Your task to perform on an android device: empty trash in google photos Image 0: 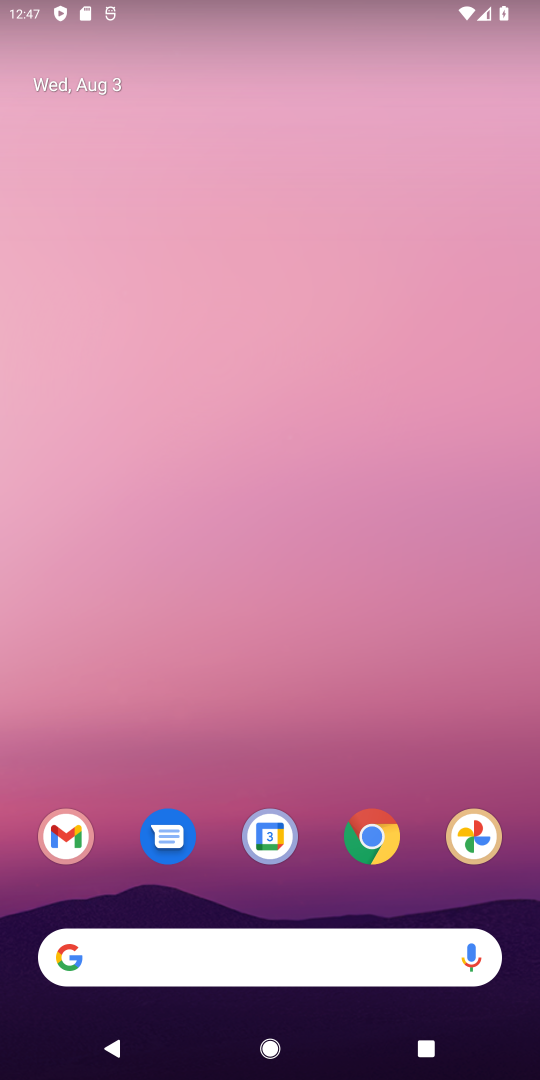
Step 0: drag from (226, 885) to (476, 111)
Your task to perform on an android device: empty trash in google photos Image 1: 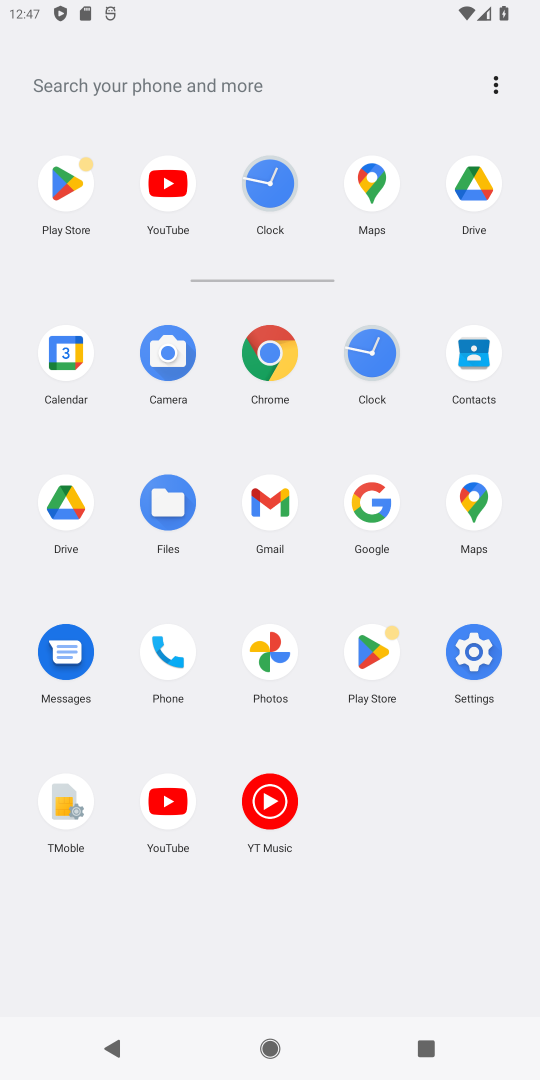
Step 1: drag from (352, 841) to (317, 316)
Your task to perform on an android device: empty trash in google photos Image 2: 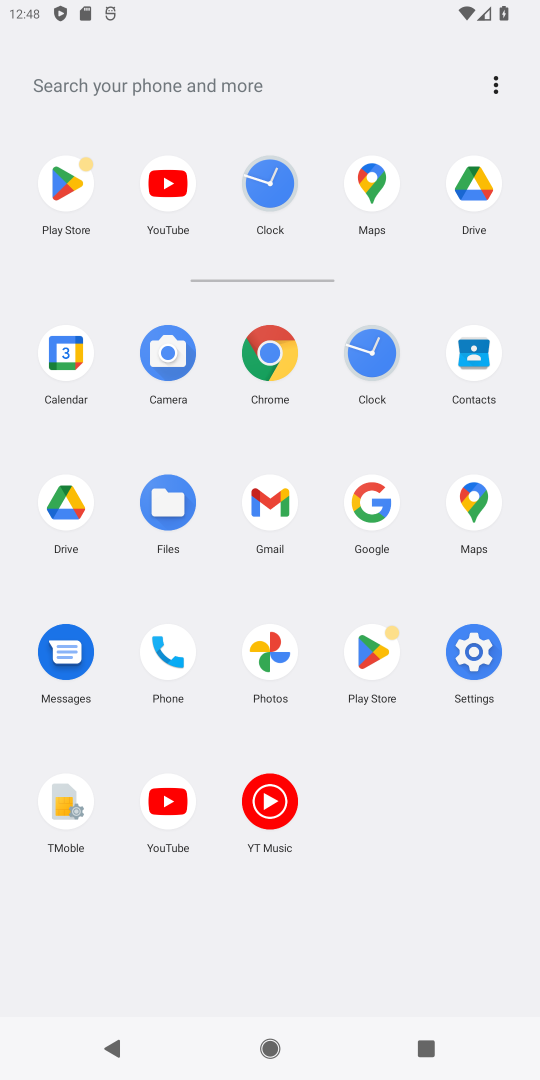
Step 2: click (276, 643)
Your task to perform on an android device: empty trash in google photos Image 3: 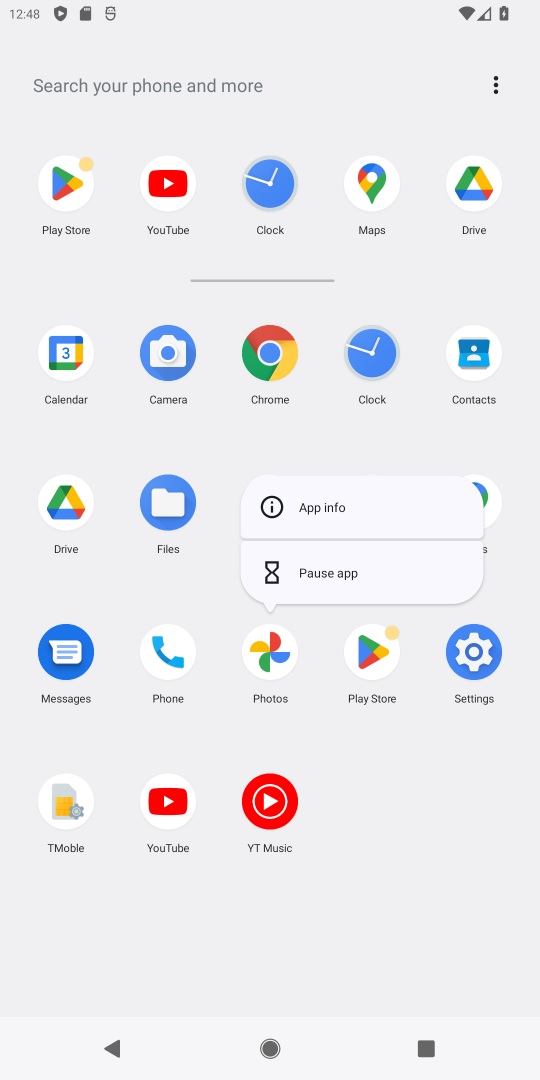
Step 3: click (357, 498)
Your task to perform on an android device: empty trash in google photos Image 4: 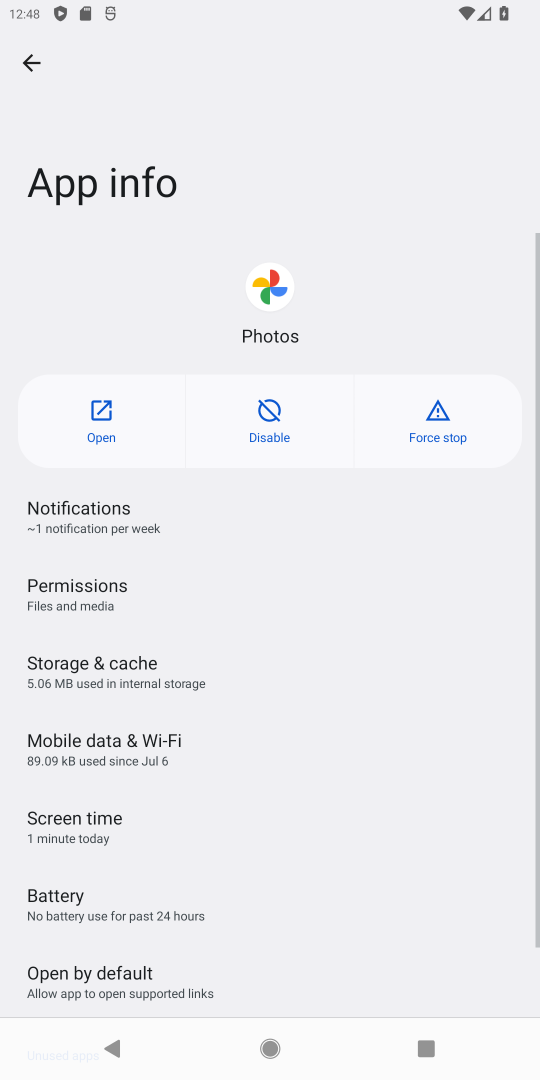
Step 4: click (99, 424)
Your task to perform on an android device: empty trash in google photos Image 5: 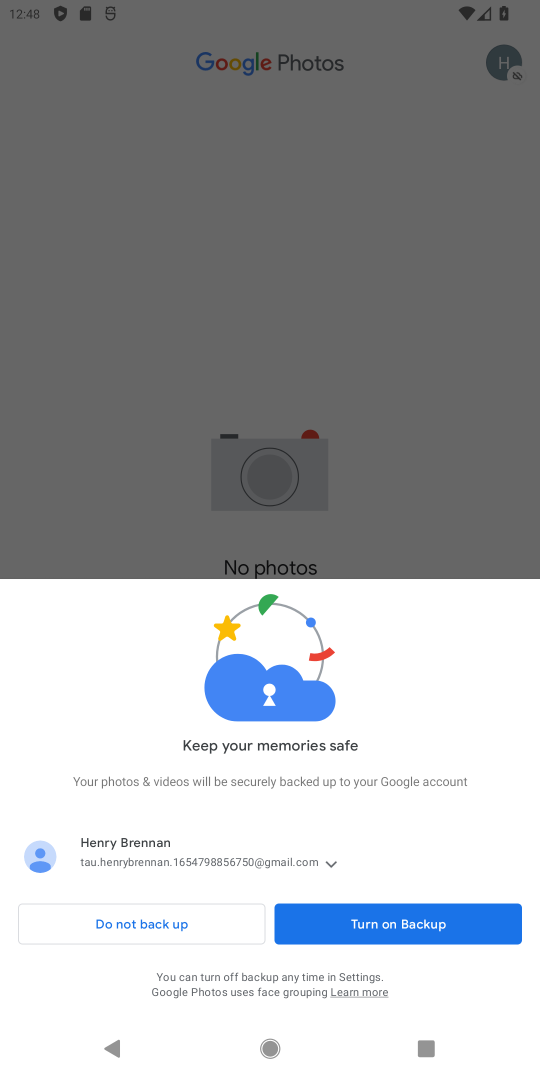
Step 5: drag from (285, 658) to (288, 162)
Your task to perform on an android device: empty trash in google photos Image 6: 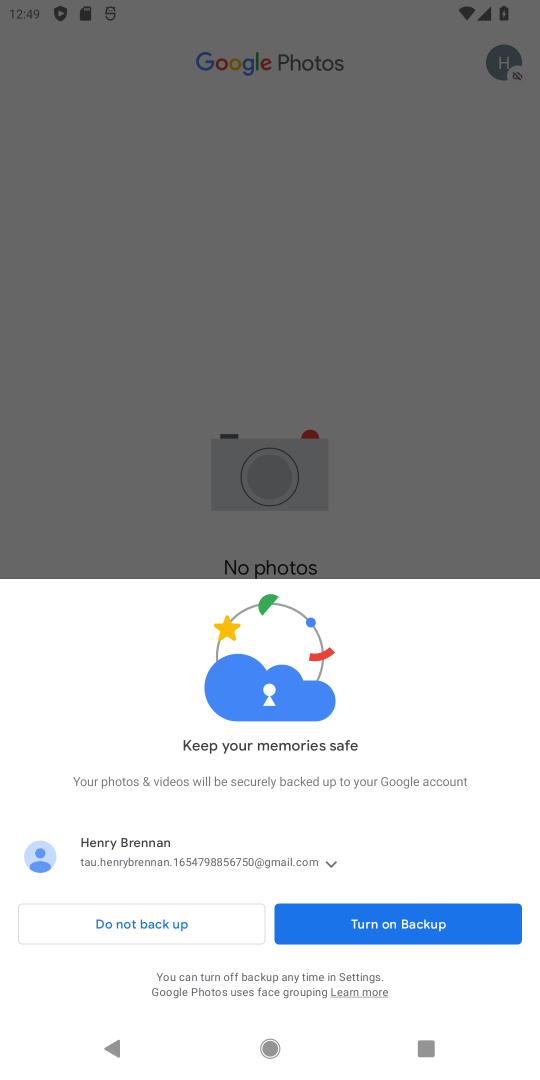
Step 6: drag from (327, 791) to (327, 711)
Your task to perform on an android device: empty trash in google photos Image 7: 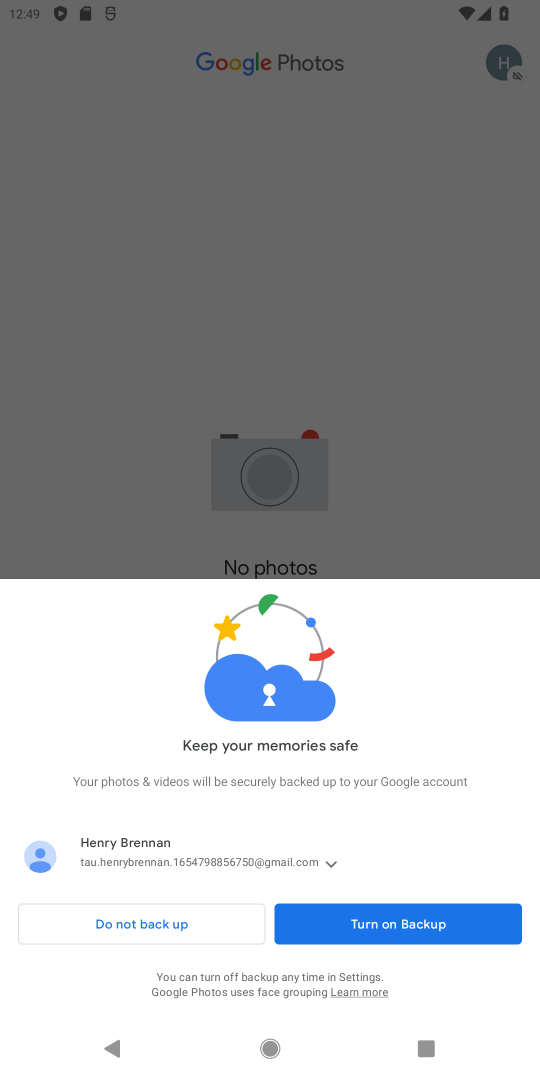
Step 7: drag from (366, 731) to (371, 591)
Your task to perform on an android device: empty trash in google photos Image 8: 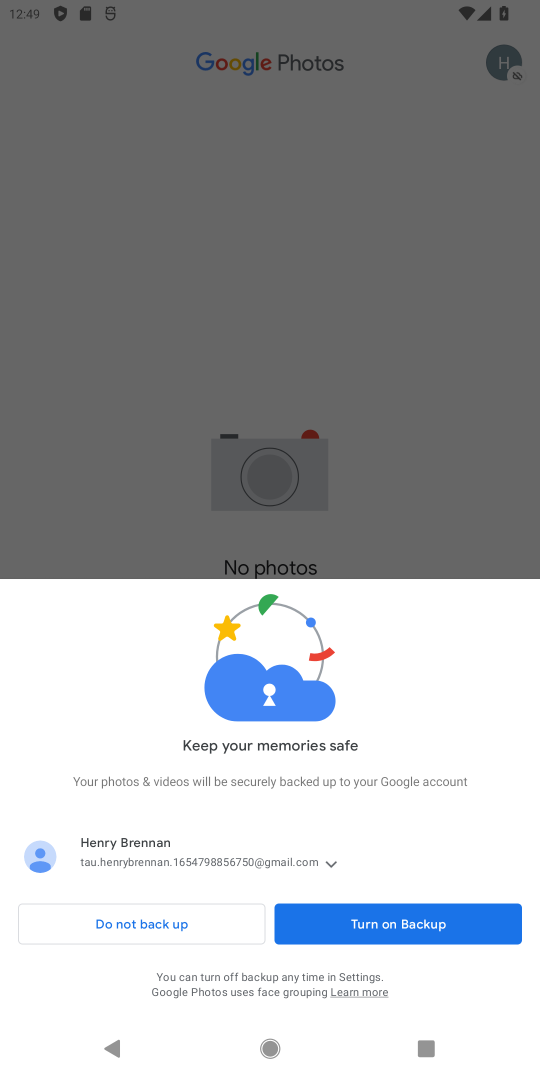
Step 8: click (309, 350)
Your task to perform on an android device: empty trash in google photos Image 9: 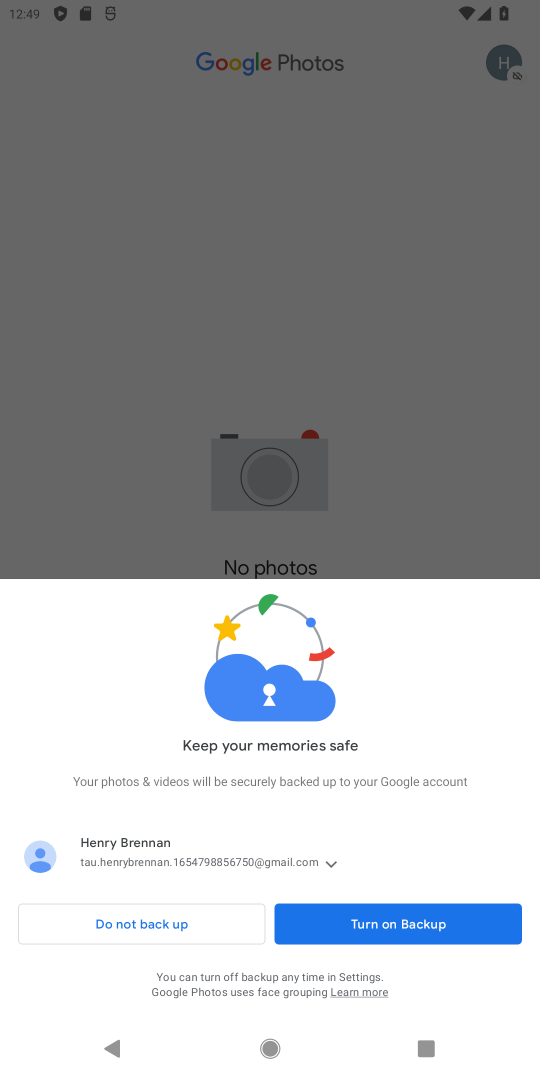
Step 9: click (354, 930)
Your task to perform on an android device: empty trash in google photos Image 10: 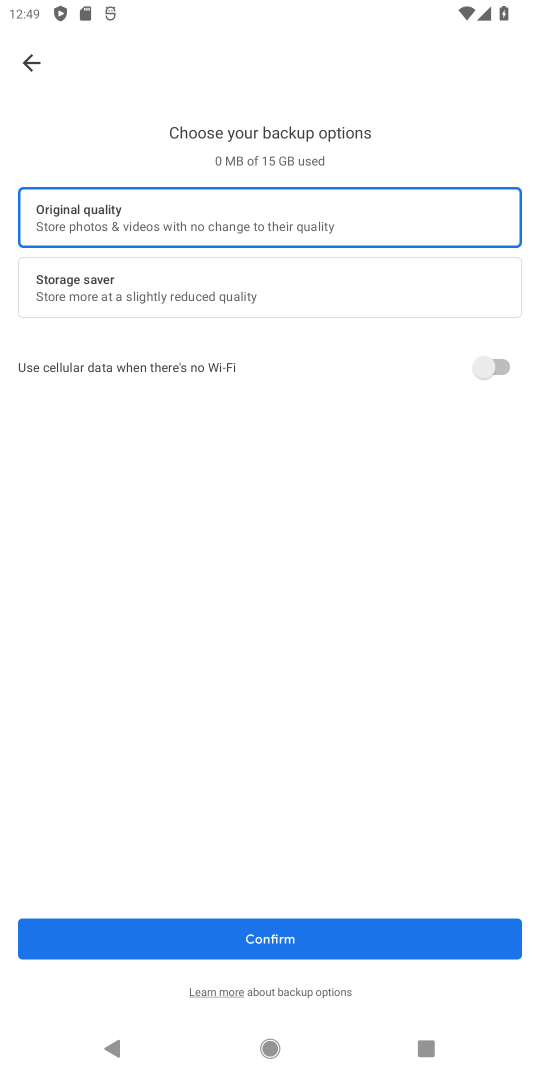
Step 10: click (22, 72)
Your task to perform on an android device: empty trash in google photos Image 11: 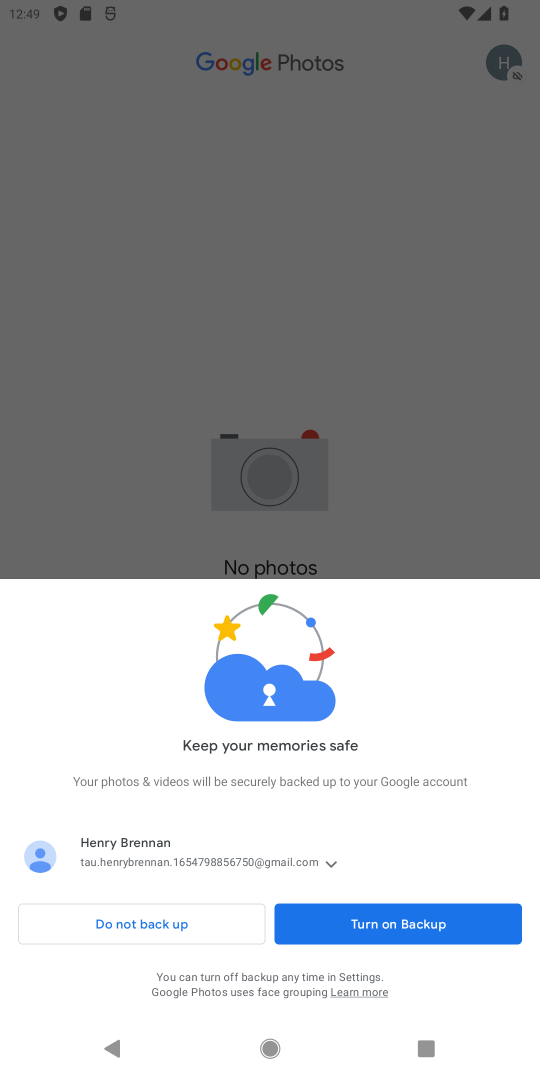
Step 11: click (152, 923)
Your task to perform on an android device: empty trash in google photos Image 12: 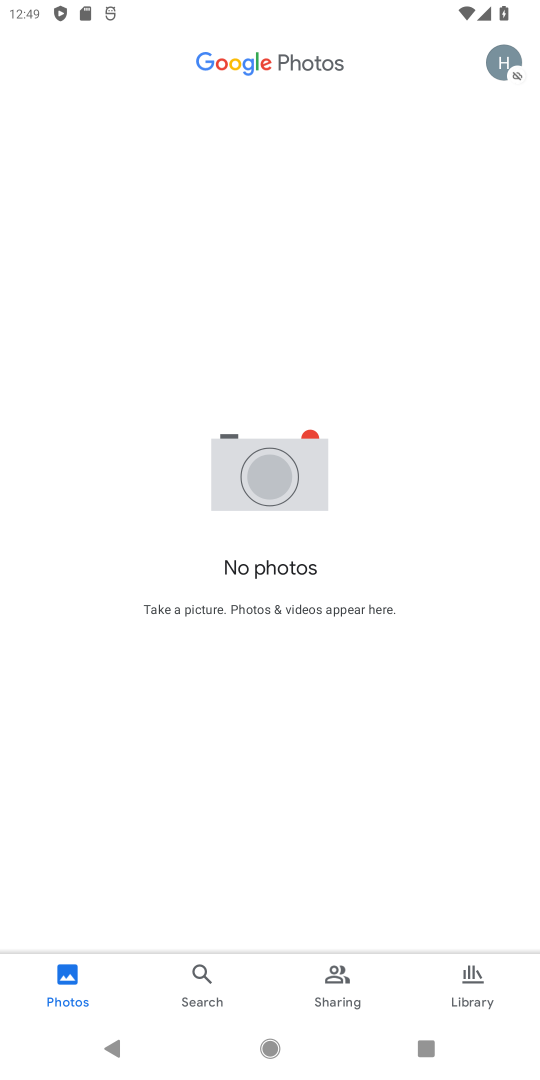
Step 12: click (463, 968)
Your task to perform on an android device: empty trash in google photos Image 13: 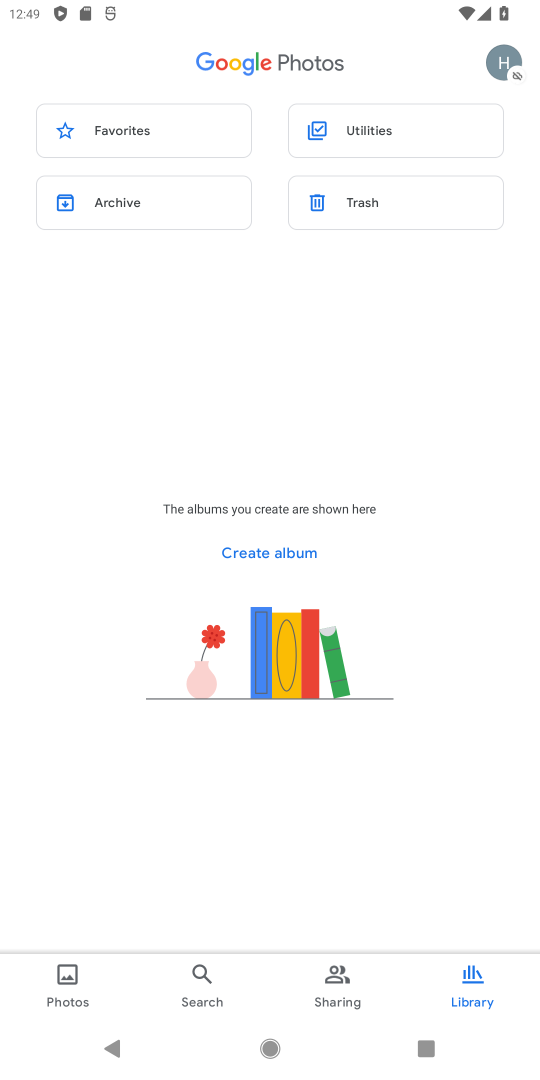
Step 13: click (352, 201)
Your task to perform on an android device: empty trash in google photos Image 14: 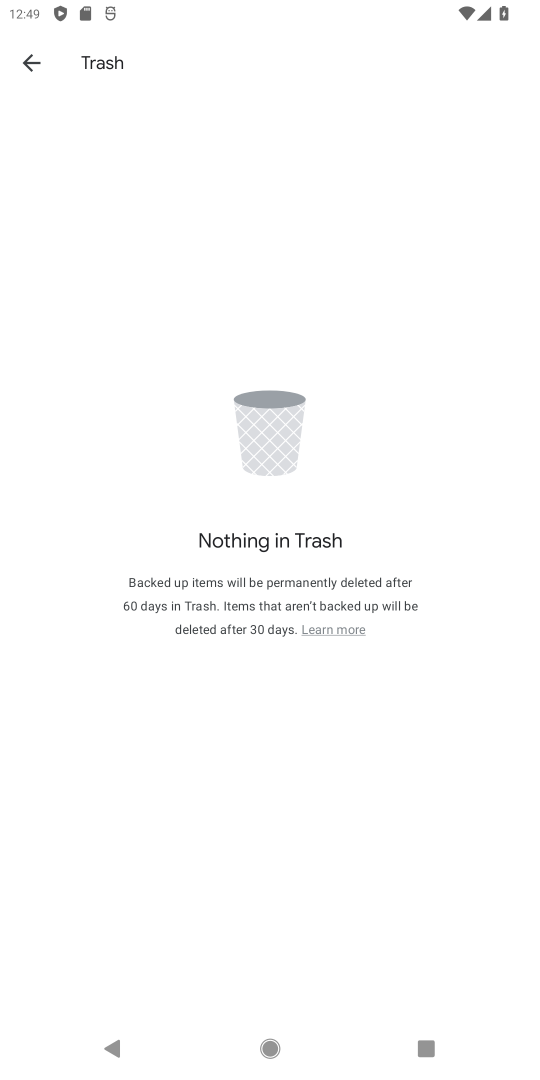
Step 14: task complete